Your task to perform on an android device: toggle data saver in the chrome app Image 0: 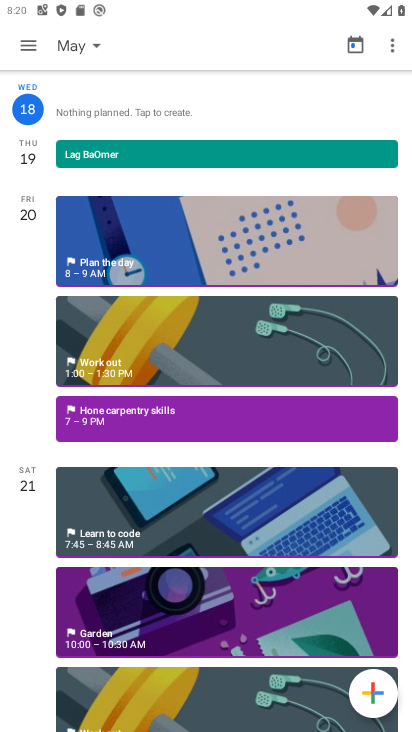
Step 0: press home button
Your task to perform on an android device: toggle data saver in the chrome app Image 1: 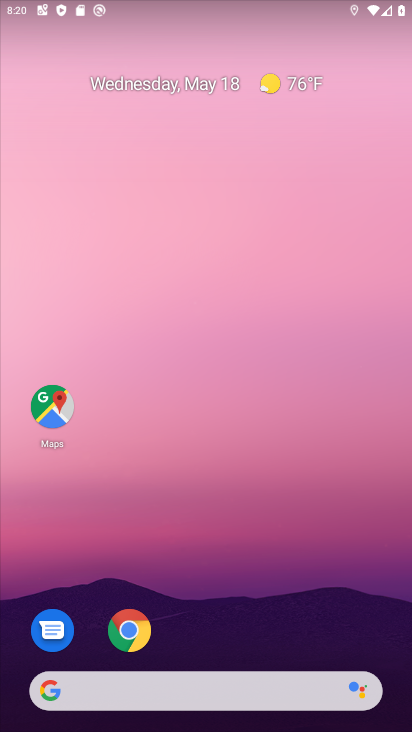
Step 1: click (141, 627)
Your task to perform on an android device: toggle data saver in the chrome app Image 2: 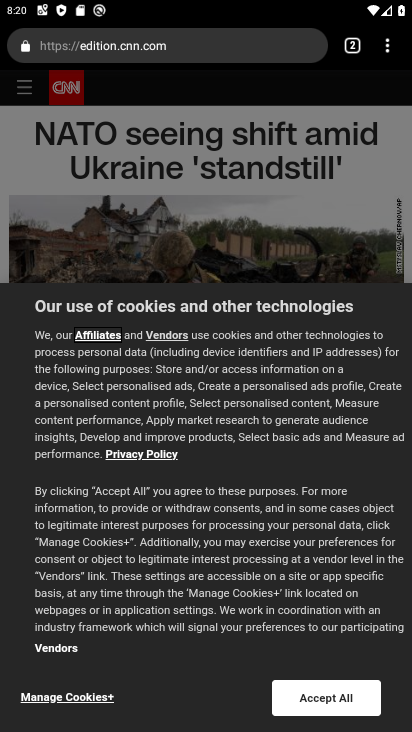
Step 2: click (383, 48)
Your task to perform on an android device: toggle data saver in the chrome app Image 3: 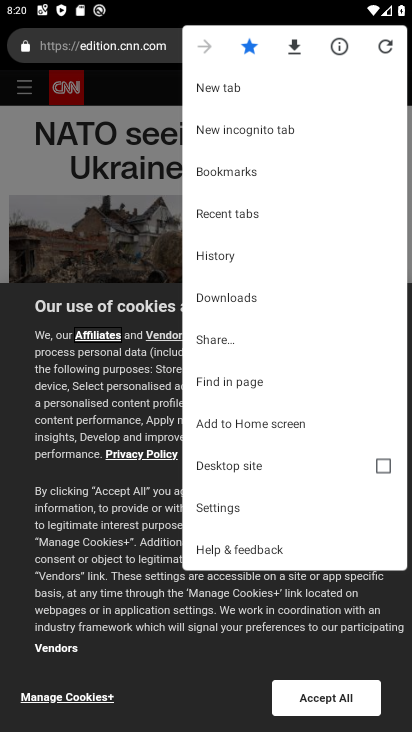
Step 3: click (255, 506)
Your task to perform on an android device: toggle data saver in the chrome app Image 4: 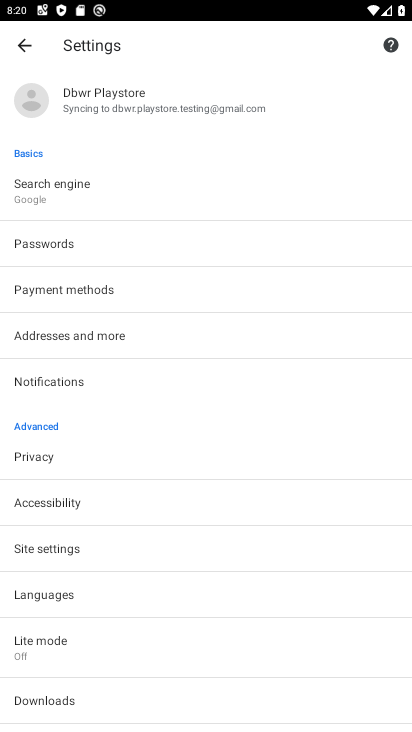
Step 4: click (45, 649)
Your task to perform on an android device: toggle data saver in the chrome app Image 5: 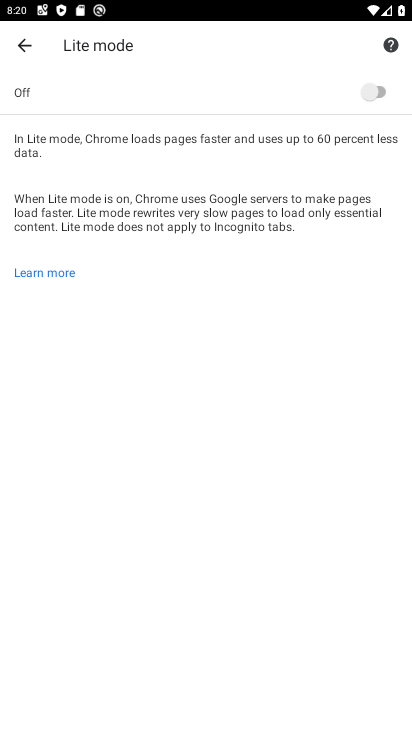
Step 5: click (378, 96)
Your task to perform on an android device: toggle data saver in the chrome app Image 6: 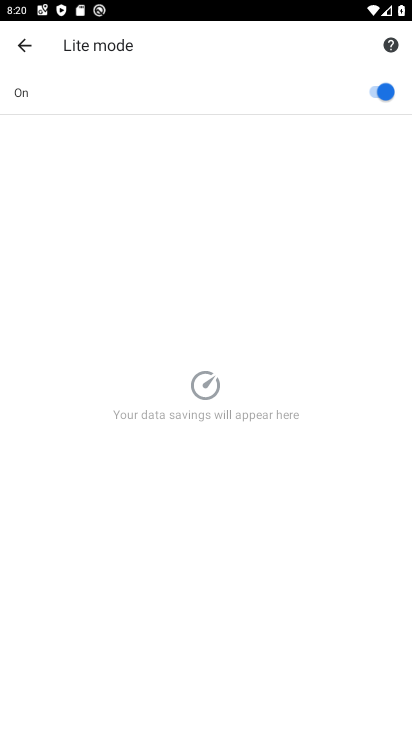
Step 6: task complete